Your task to perform on an android device: Open eBay Image 0: 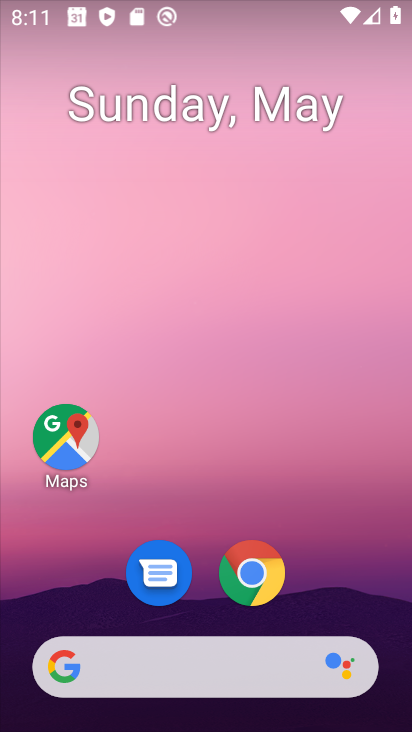
Step 0: click (266, 572)
Your task to perform on an android device: Open eBay Image 1: 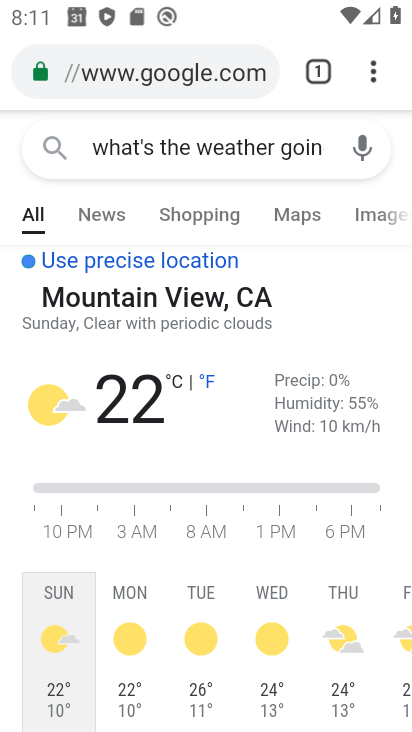
Step 1: click (319, 93)
Your task to perform on an android device: Open eBay Image 2: 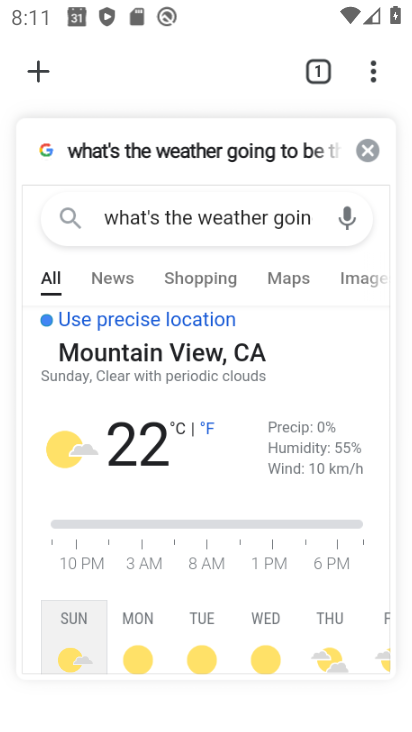
Step 2: click (36, 62)
Your task to perform on an android device: Open eBay Image 3: 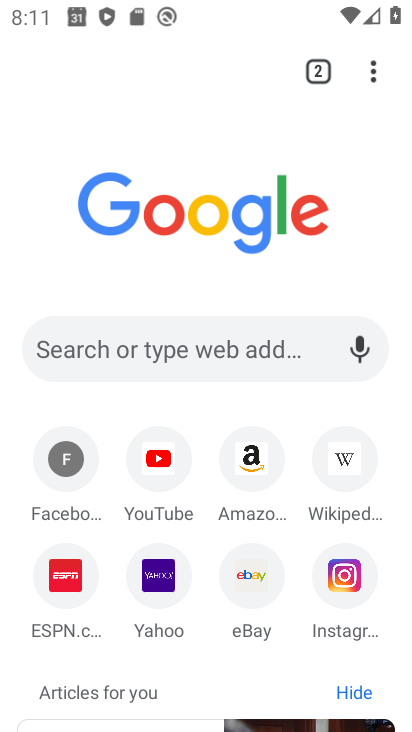
Step 3: click (244, 573)
Your task to perform on an android device: Open eBay Image 4: 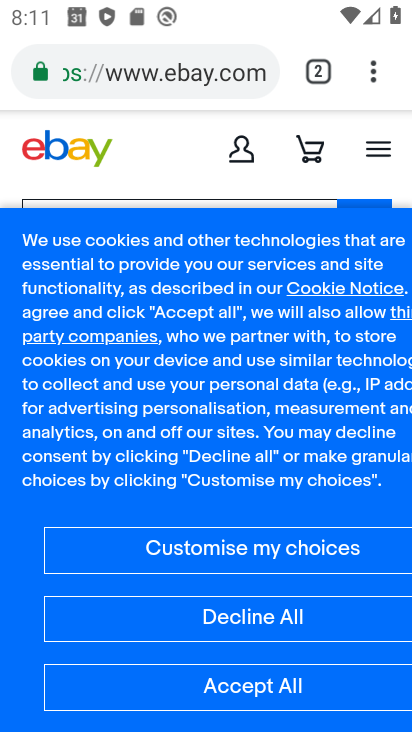
Step 4: task complete